Your task to perform on an android device: set default search engine in the chrome app Image 0: 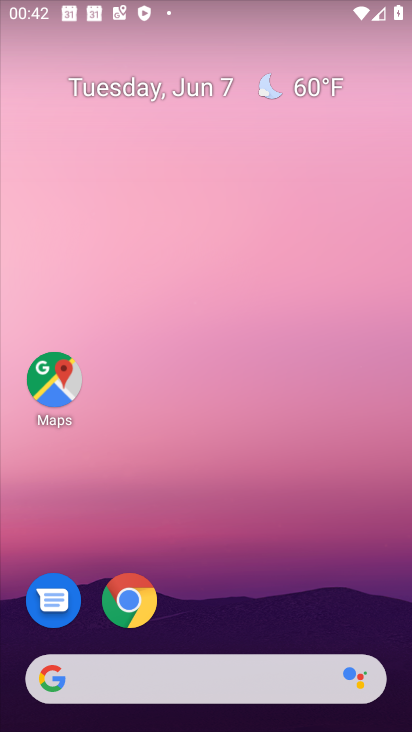
Step 0: click (136, 601)
Your task to perform on an android device: set default search engine in the chrome app Image 1: 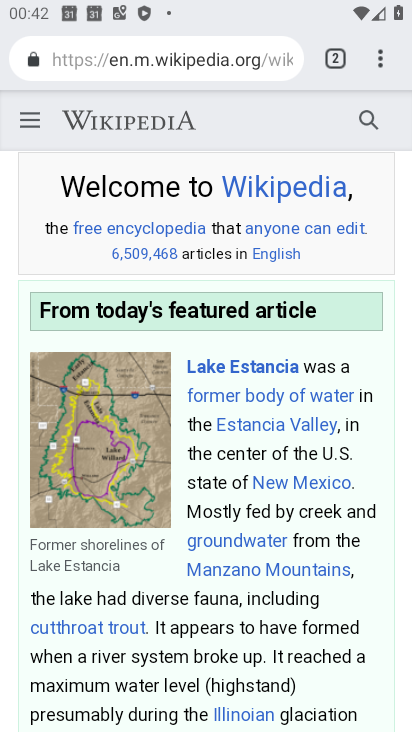
Step 1: click (381, 62)
Your task to perform on an android device: set default search engine in the chrome app Image 2: 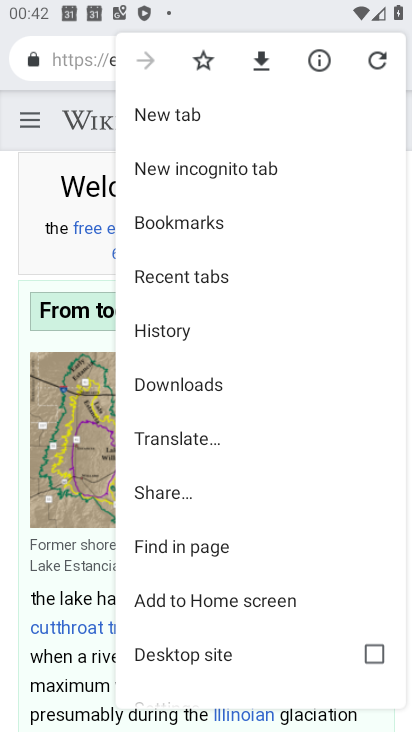
Step 2: drag from (201, 669) to (187, 335)
Your task to perform on an android device: set default search engine in the chrome app Image 3: 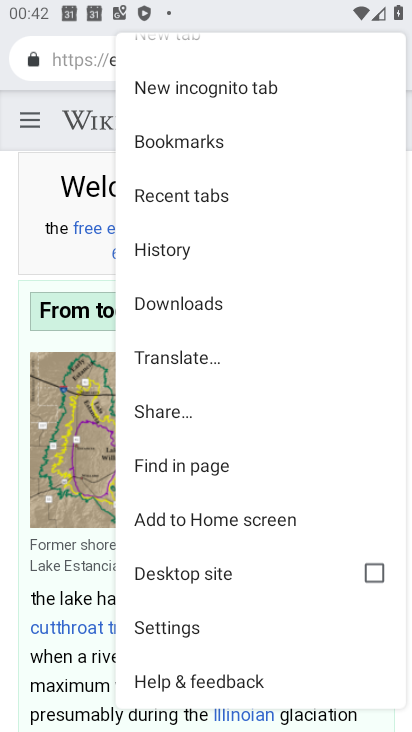
Step 3: click (178, 626)
Your task to perform on an android device: set default search engine in the chrome app Image 4: 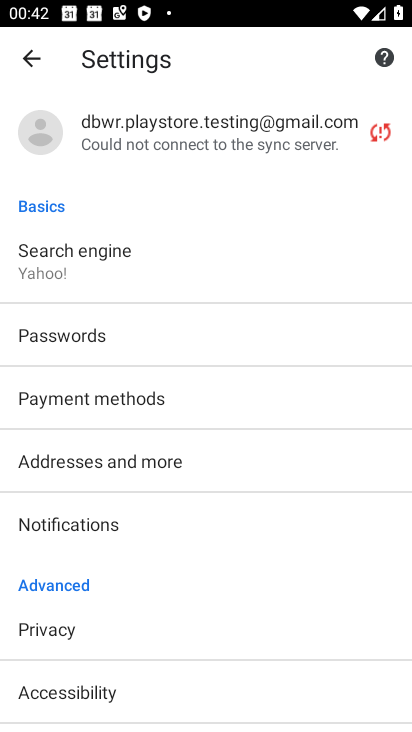
Step 4: click (70, 250)
Your task to perform on an android device: set default search engine in the chrome app Image 5: 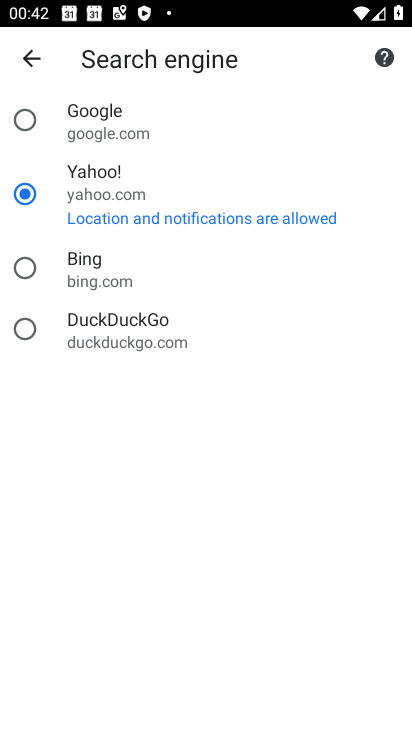
Step 5: click (22, 118)
Your task to perform on an android device: set default search engine in the chrome app Image 6: 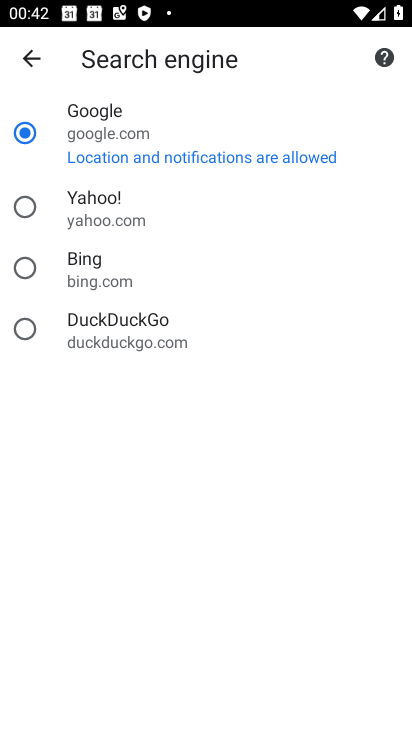
Step 6: task complete